Your task to perform on an android device: install app "Messages" Image 0: 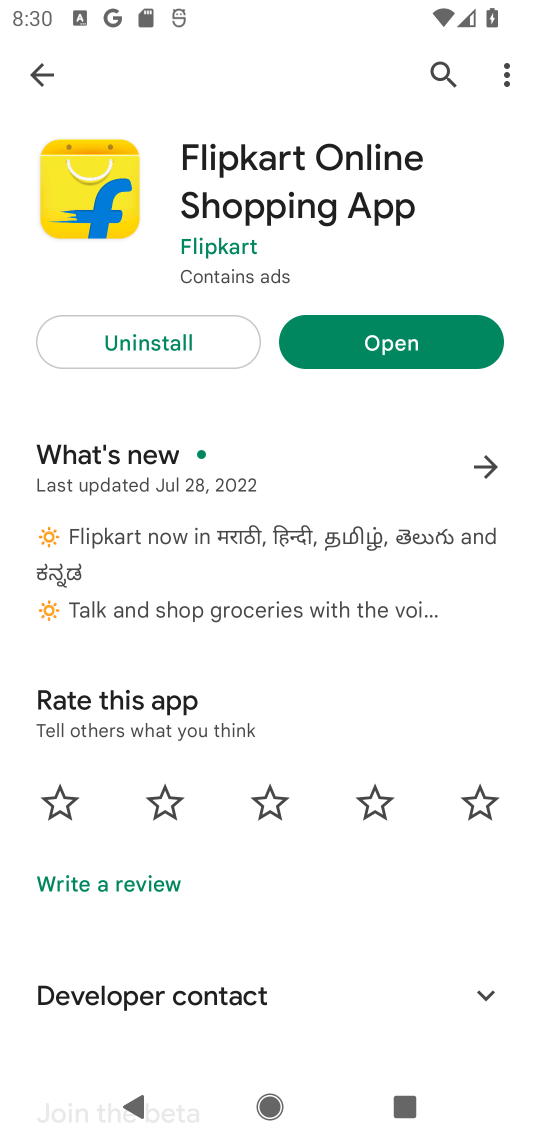
Step 0: press home button
Your task to perform on an android device: install app "Messages" Image 1: 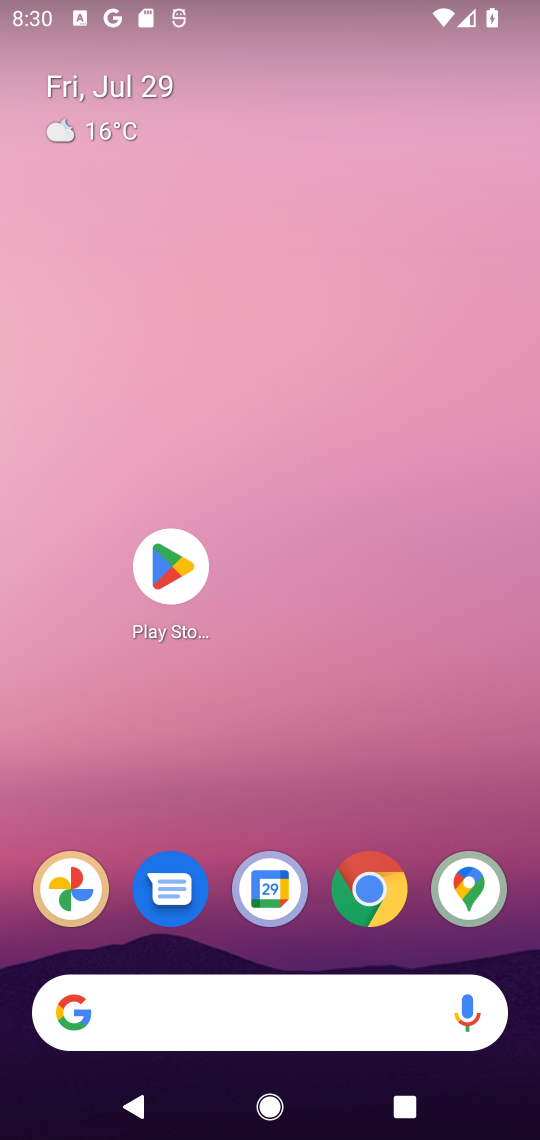
Step 1: click (172, 520)
Your task to perform on an android device: install app "Messages" Image 2: 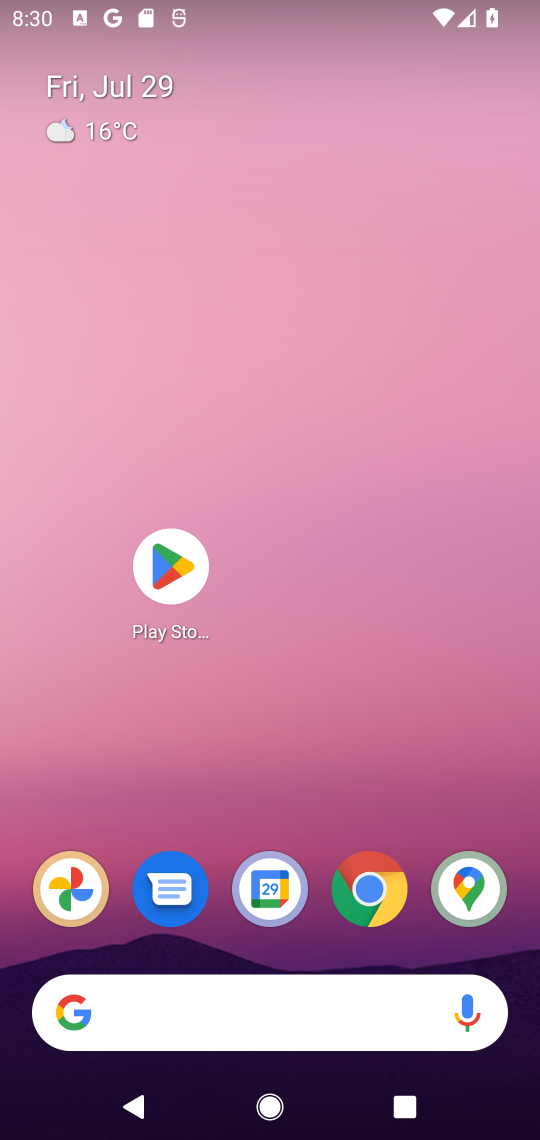
Step 2: click (170, 552)
Your task to perform on an android device: install app "Messages" Image 3: 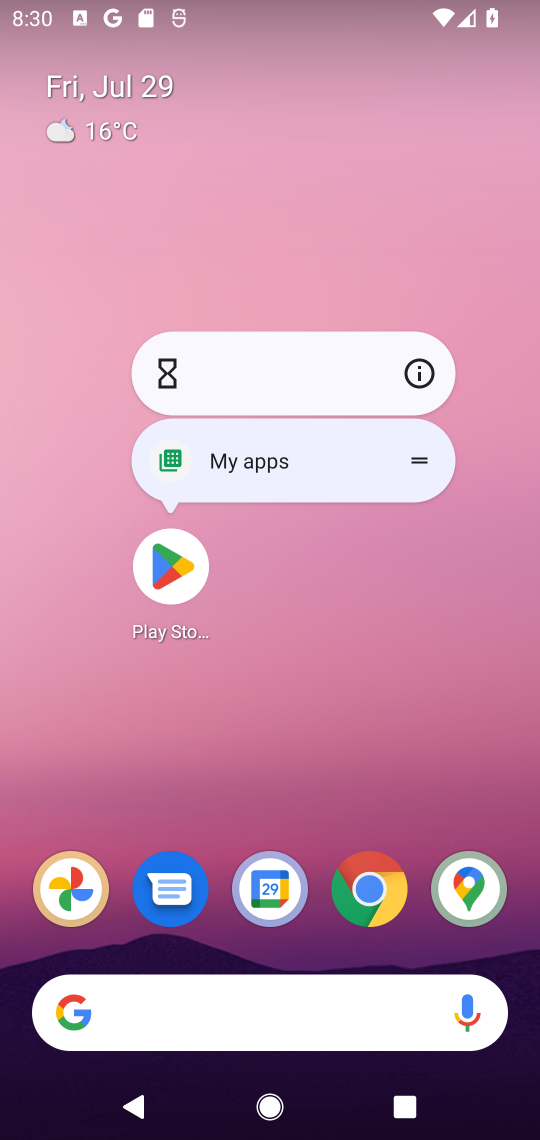
Step 3: click (171, 569)
Your task to perform on an android device: install app "Messages" Image 4: 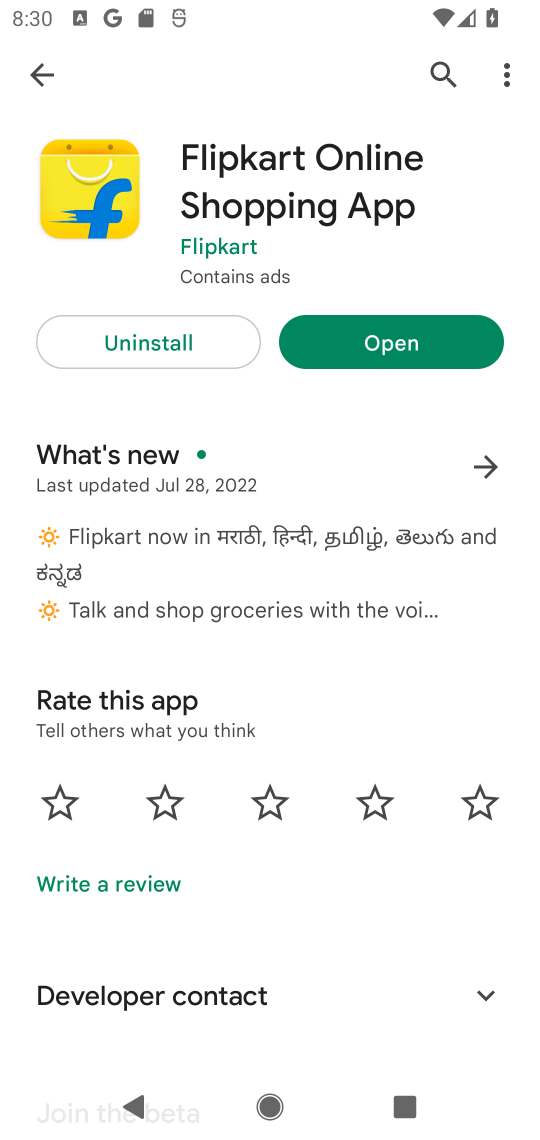
Step 4: click (439, 68)
Your task to perform on an android device: install app "Messages" Image 5: 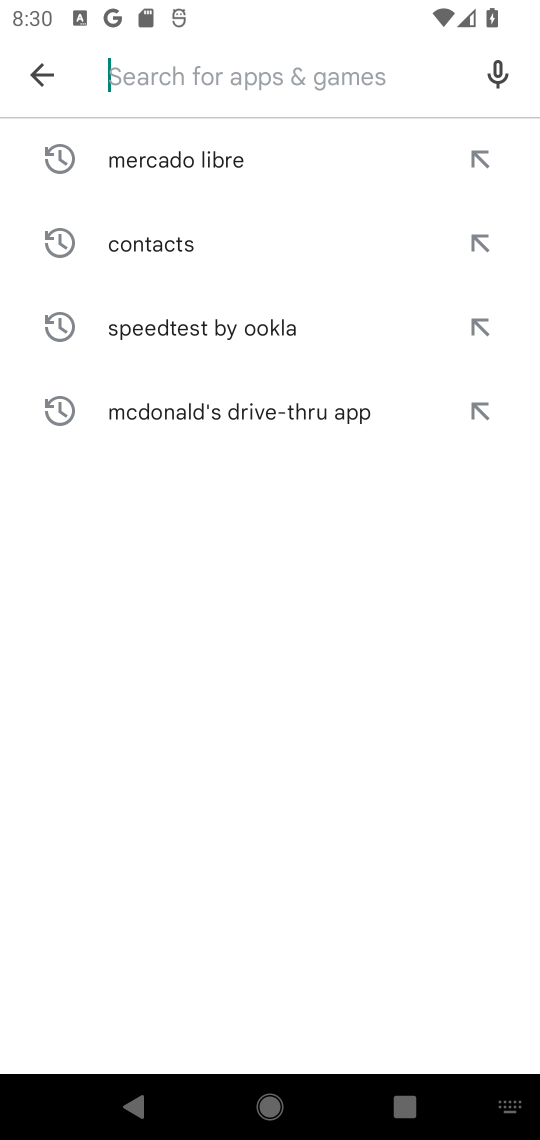
Step 5: type "Messages"
Your task to perform on an android device: install app "Messages" Image 6: 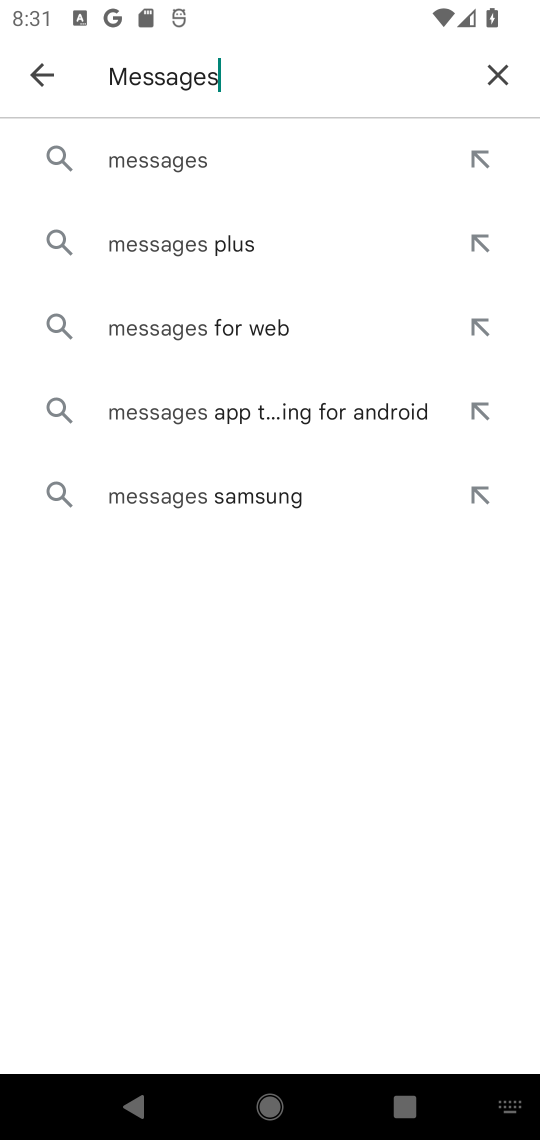
Step 6: click (201, 153)
Your task to perform on an android device: install app "Messages" Image 7: 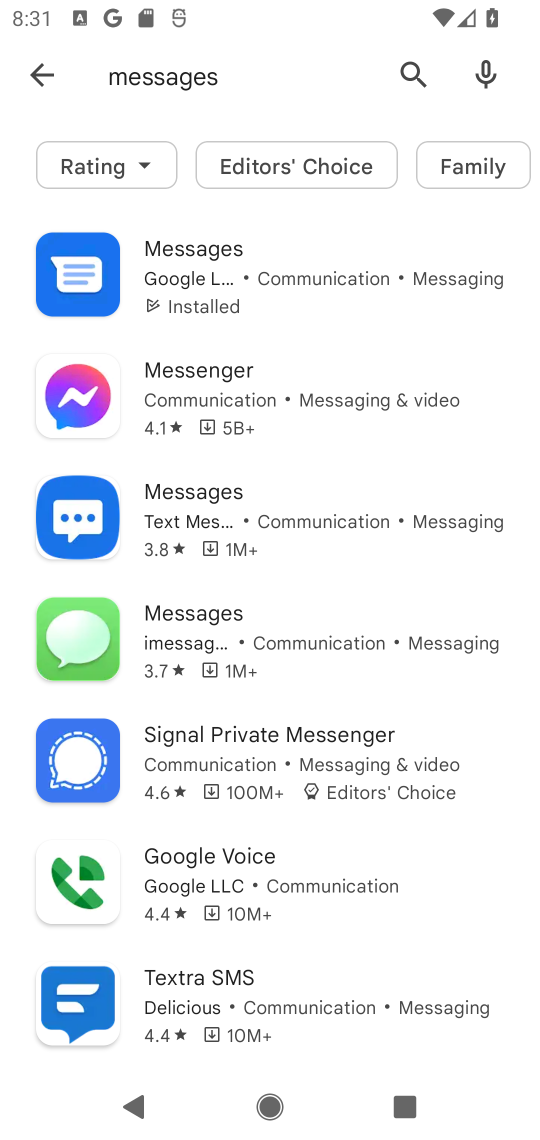
Step 7: click (213, 279)
Your task to perform on an android device: install app "Messages" Image 8: 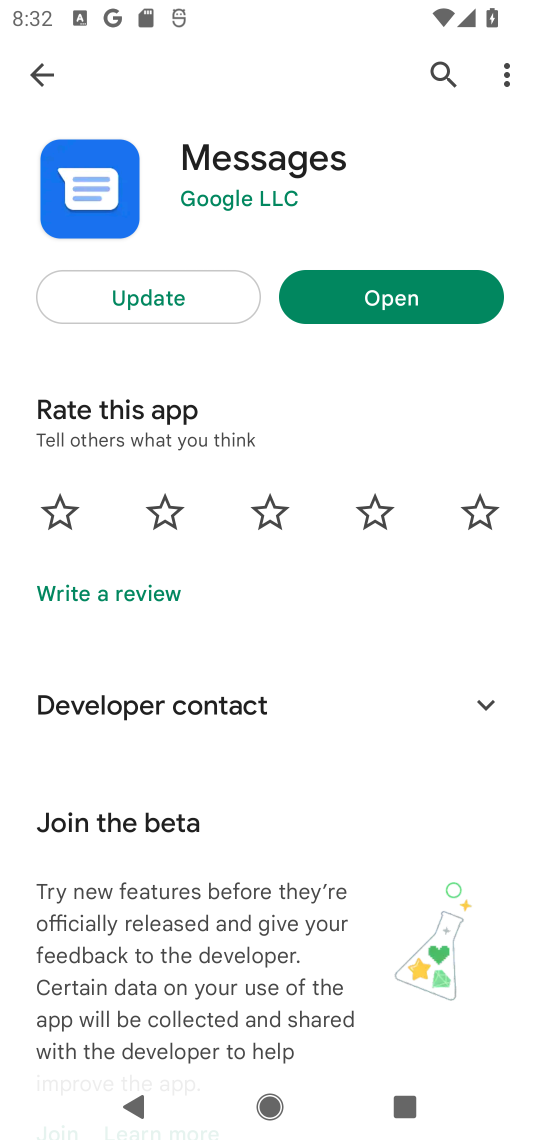
Step 8: task complete